Your task to perform on an android device: change your default location settings in chrome Image 0: 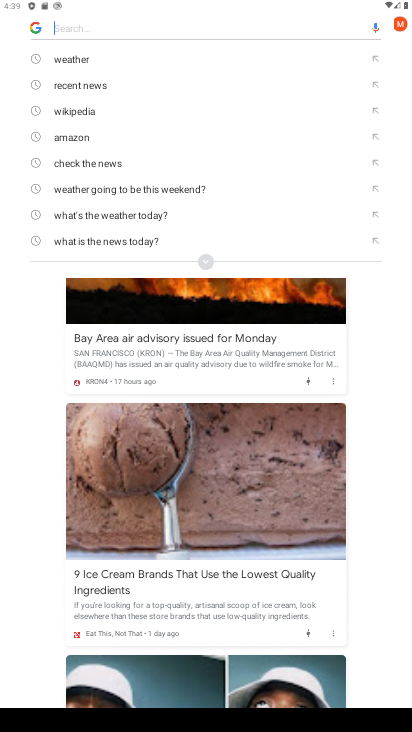
Step 0: press back button
Your task to perform on an android device: change your default location settings in chrome Image 1: 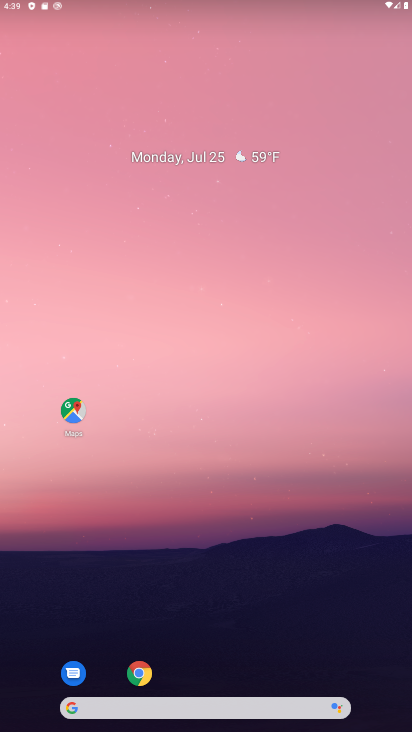
Step 1: drag from (192, 456) to (203, 26)
Your task to perform on an android device: change your default location settings in chrome Image 2: 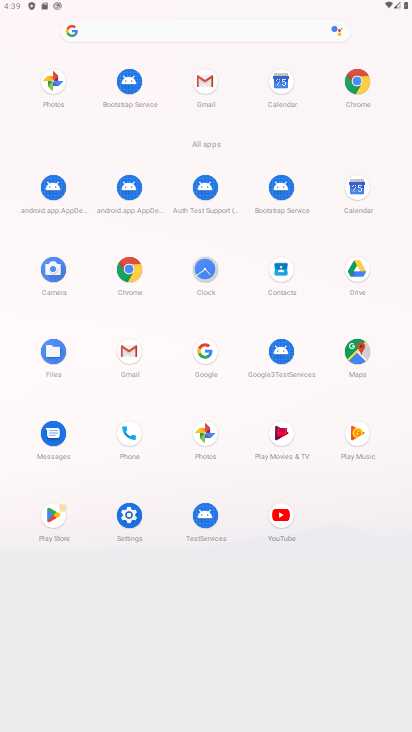
Step 2: click (359, 76)
Your task to perform on an android device: change your default location settings in chrome Image 3: 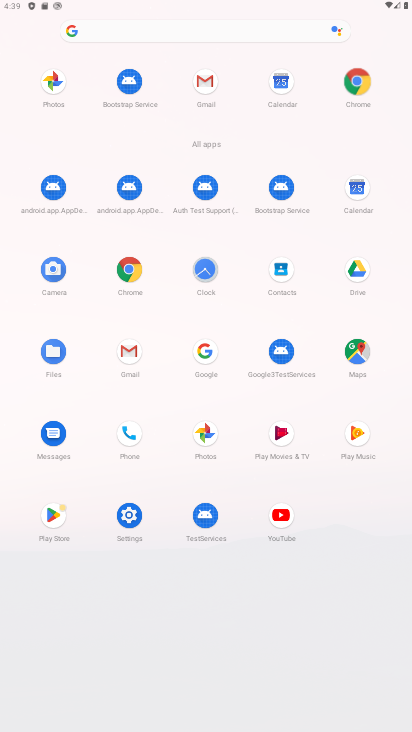
Step 3: click (359, 76)
Your task to perform on an android device: change your default location settings in chrome Image 4: 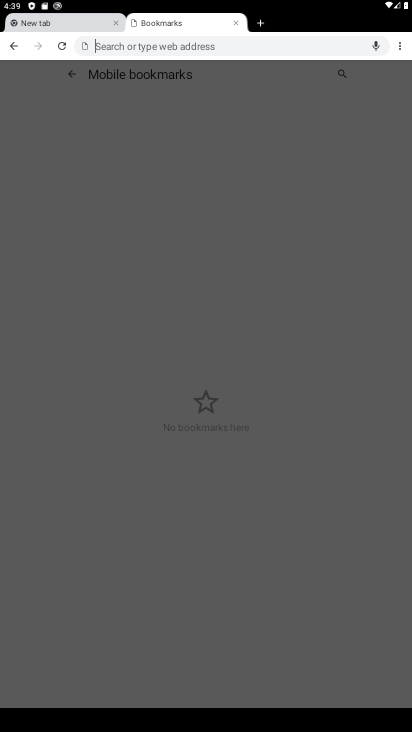
Step 4: click (393, 46)
Your task to perform on an android device: change your default location settings in chrome Image 5: 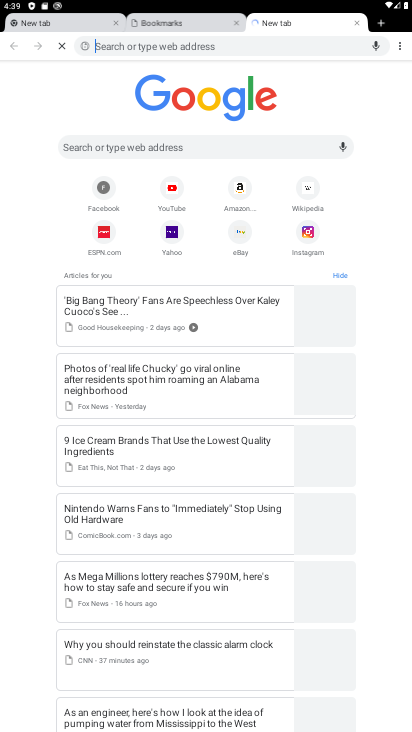
Step 5: drag from (393, 46) to (311, 211)
Your task to perform on an android device: change your default location settings in chrome Image 6: 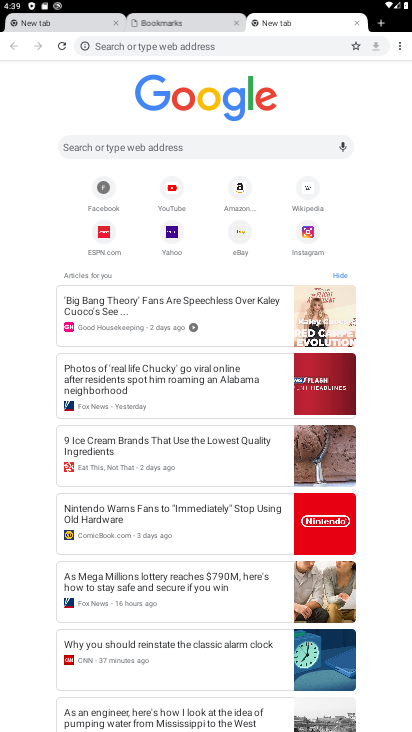
Step 6: click (312, 212)
Your task to perform on an android device: change your default location settings in chrome Image 7: 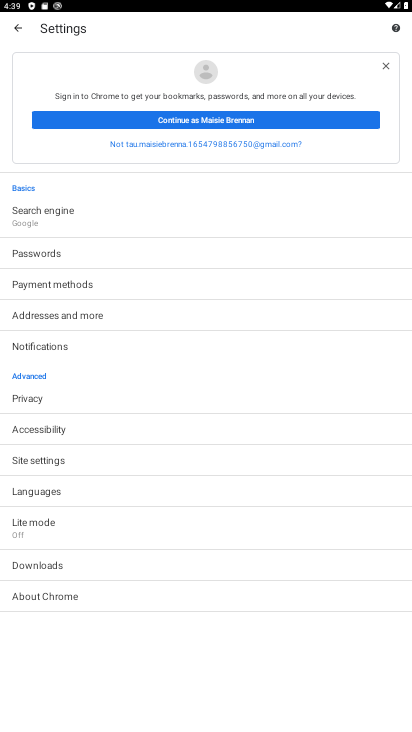
Step 7: click (41, 212)
Your task to perform on an android device: change your default location settings in chrome Image 8: 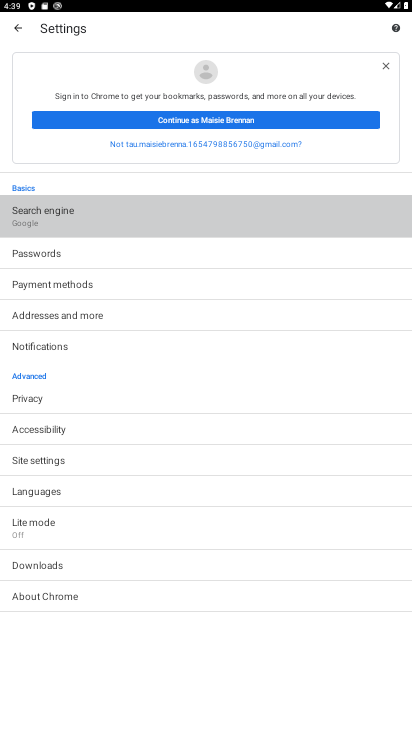
Step 8: click (42, 220)
Your task to perform on an android device: change your default location settings in chrome Image 9: 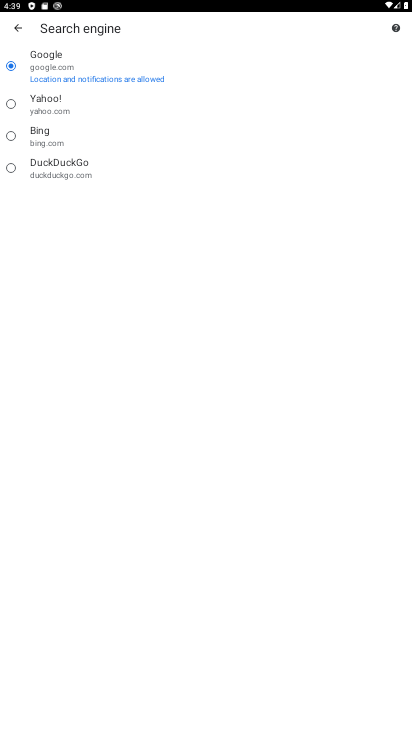
Step 9: click (9, 26)
Your task to perform on an android device: change your default location settings in chrome Image 10: 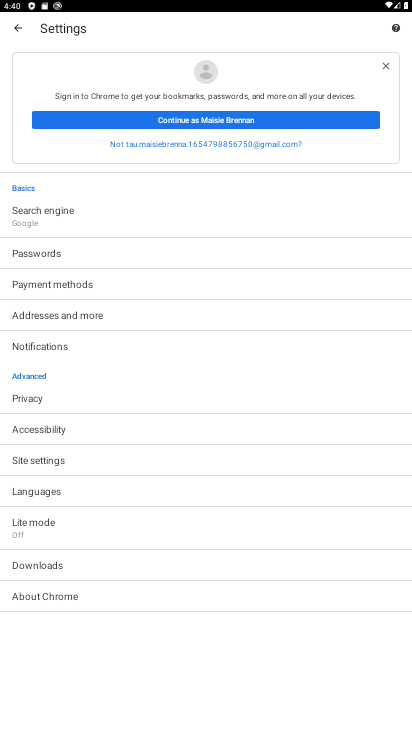
Step 10: click (36, 458)
Your task to perform on an android device: change your default location settings in chrome Image 11: 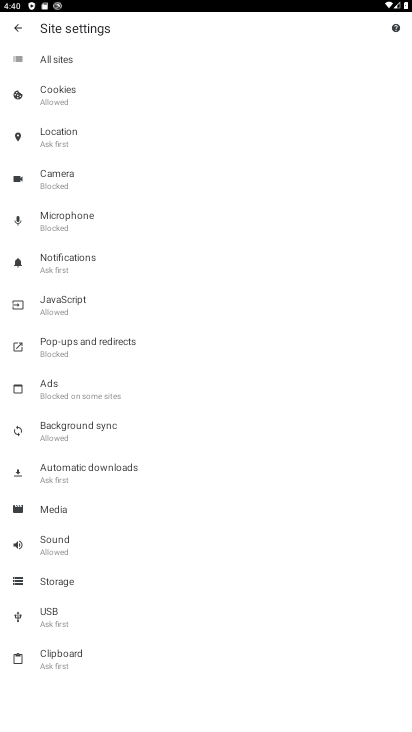
Step 11: click (68, 144)
Your task to perform on an android device: change your default location settings in chrome Image 12: 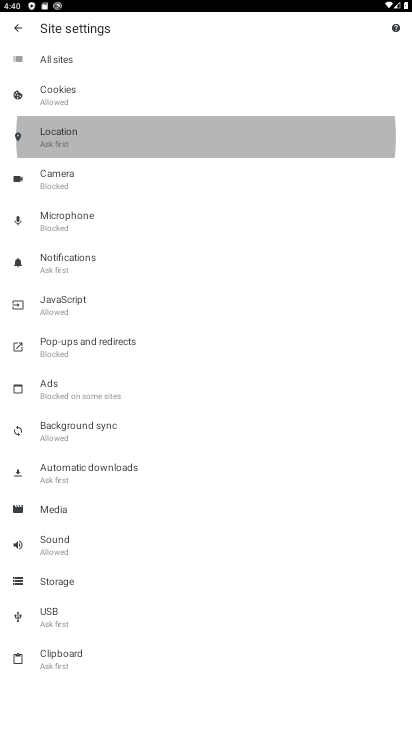
Step 12: click (65, 138)
Your task to perform on an android device: change your default location settings in chrome Image 13: 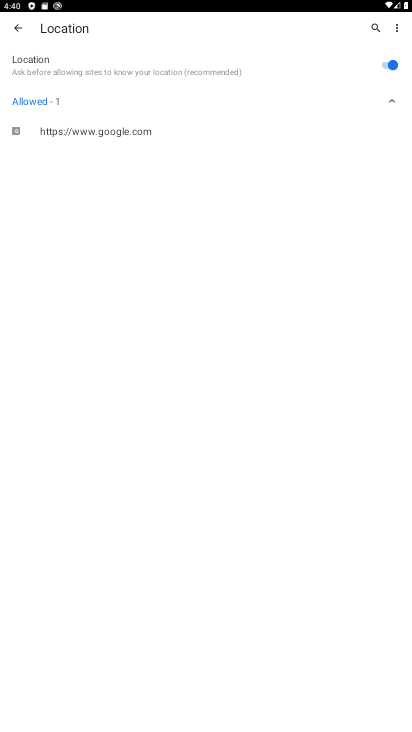
Step 13: click (405, 63)
Your task to perform on an android device: change your default location settings in chrome Image 14: 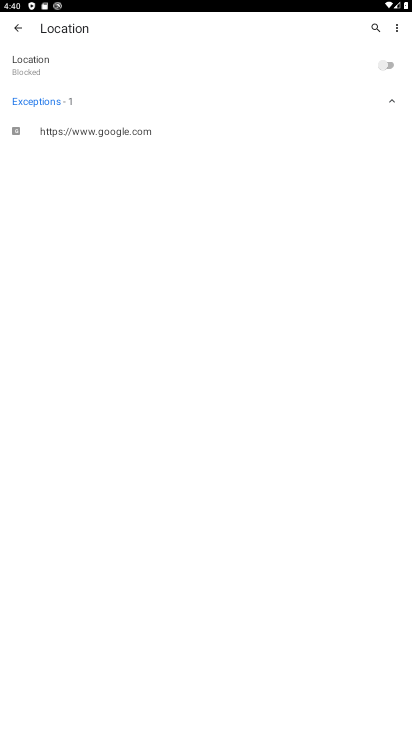
Step 14: task complete